Your task to perform on an android device: Open Amazon Image 0: 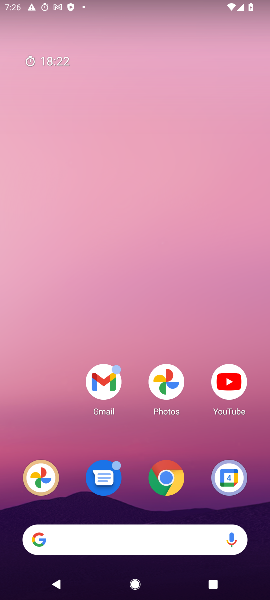
Step 0: drag from (132, 499) to (191, 86)
Your task to perform on an android device: Open Amazon Image 1: 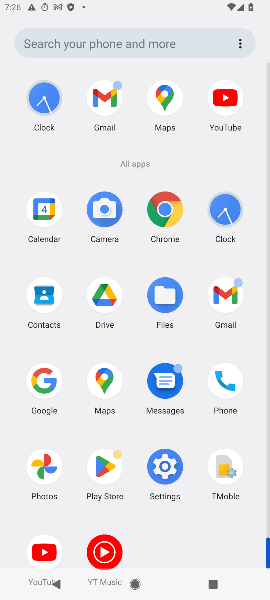
Step 1: click (161, 207)
Your task to perform on an android device: Open Amazon Image 2: 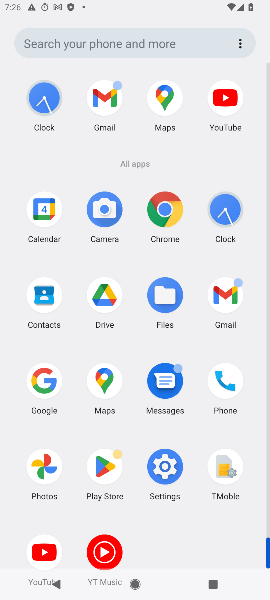
Step 2: click (161, 207)
Your task to perform on an android device: Open Amazon Image 3: 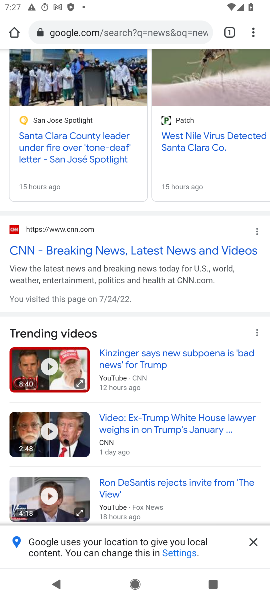
Step 3: click (147, 595)
Your task to perform on an android device: Open Amazon Image 4: 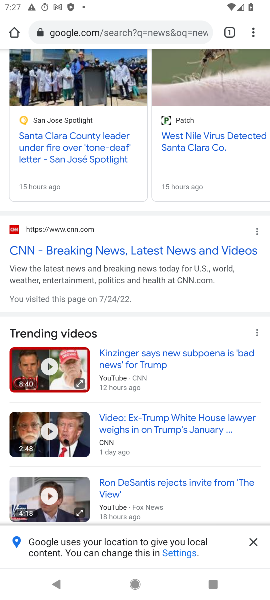
Step 4: drag from (93, 170) to (204, 585)
Your task to perform on an android device: Open Amazon Image 5: 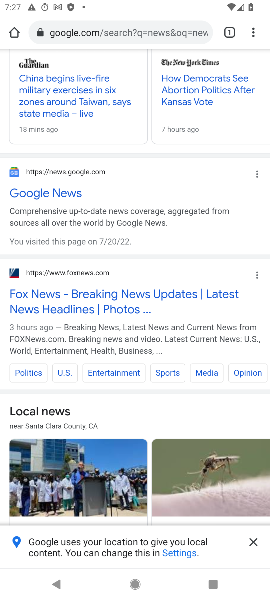
Step 5: click (138, 33)
Your task to perform on an android device: Open Amazon Image 6: 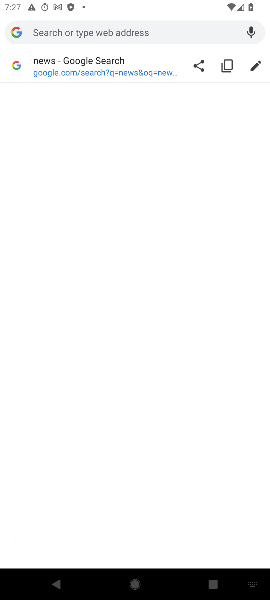
Step 6: type "amazon"
Your task to perform on an android device: Open Amazon Image 7: 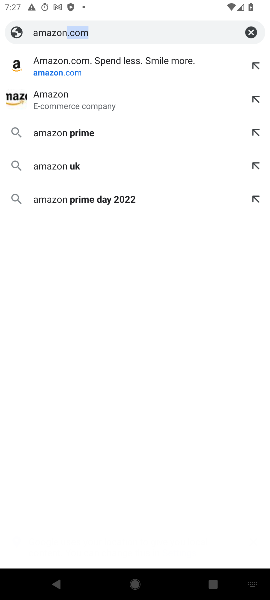
Step 7: click (130, 67)
Your task to perform on an android device: Open Amazon Image 8: 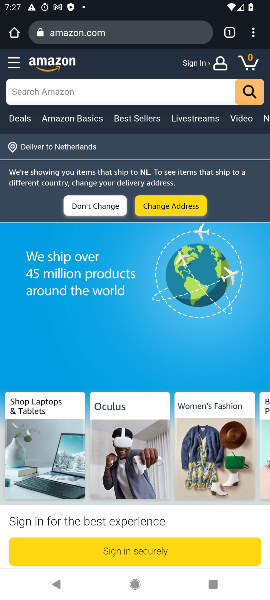
Step 8: task complete